Your task to perform on an android device: turn notification dots on Image 0: 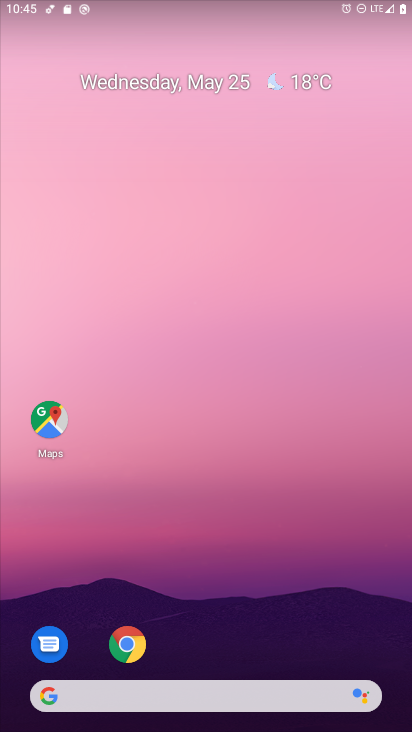
Step 0: press home button
Your task to perform on an android device: turn notification dots on Image 1: 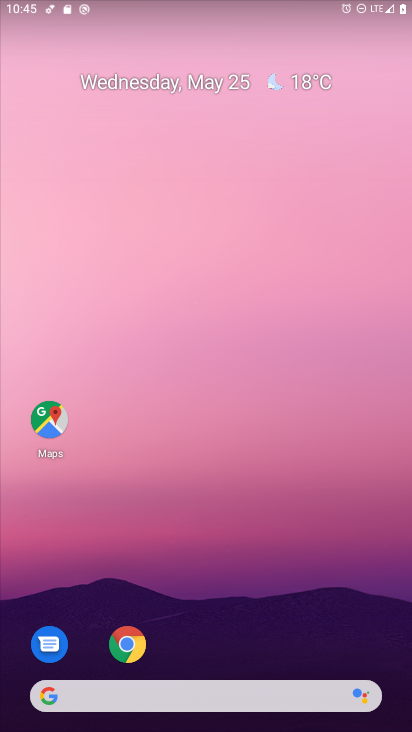
Step 1: drag from (208, 661) to (230, 97)
Your task to perform on an android device: turn notification dots on Image 2: 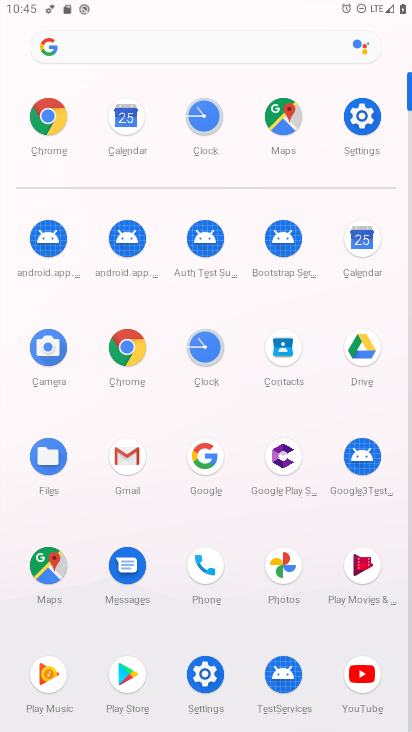
Step 2: click (356, 104)
Your task to perform on an android device: turn notification dots on Image 3: 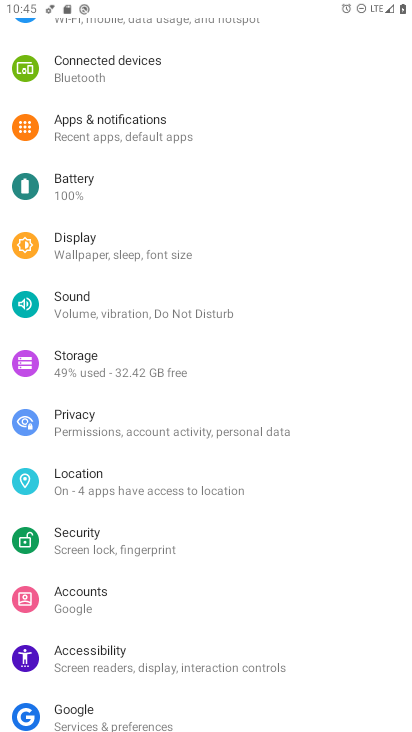
Step 3: click (181, 120)
Your task to perform on an android device: turn notification dots on Image 4: 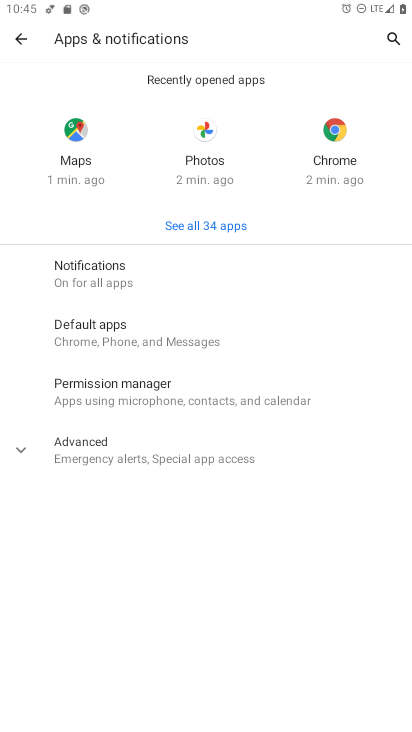
Step 4: click (142, 260)
Your task to perform on an android device: turn notification dots on Image 5: 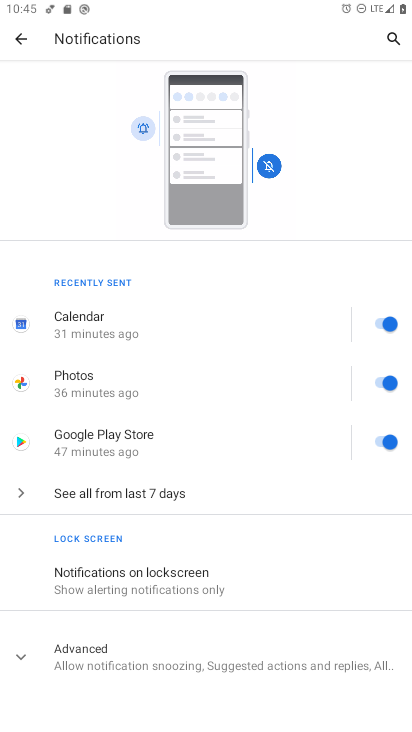
Step 5: click (118, 648)
Your task to perform on an android device: turn notification dots on Image 6: 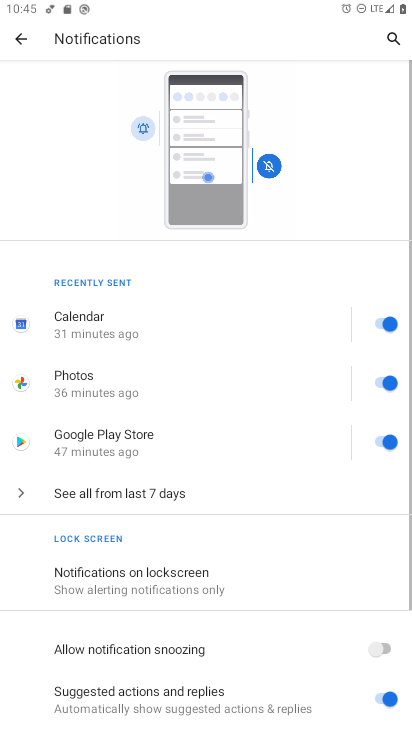
Step 6: drag from (168, 653) to (170, 169)
Your task to perform on an android device: turn notification dots on Image 7: 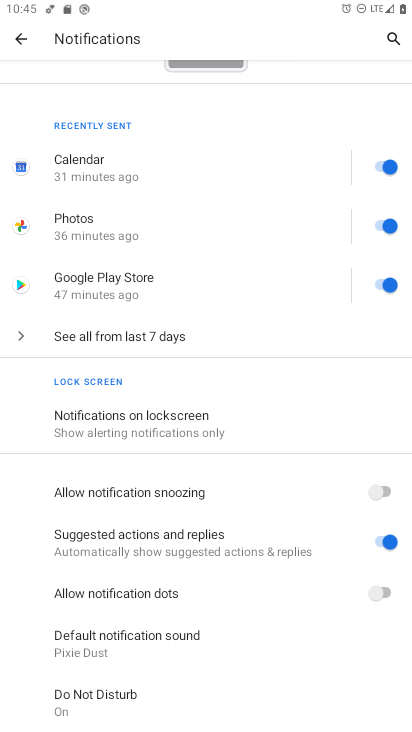
Step 7: click (378, 583)
Your task to perform on an android device: turn notification dots on Image 8: 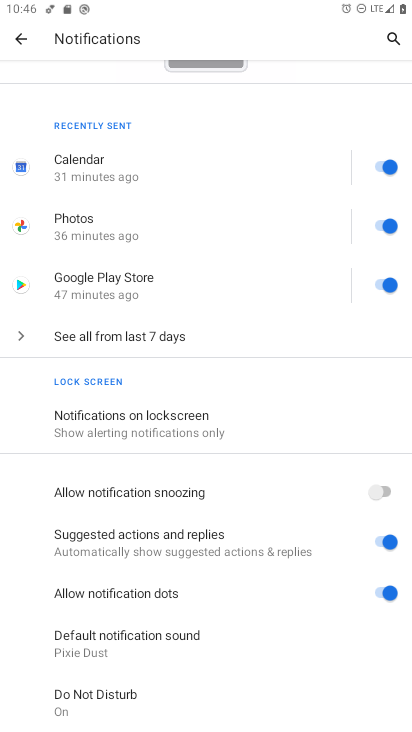
Step 8: task complete